Your task to perform on an android device: check battery use Image 0: 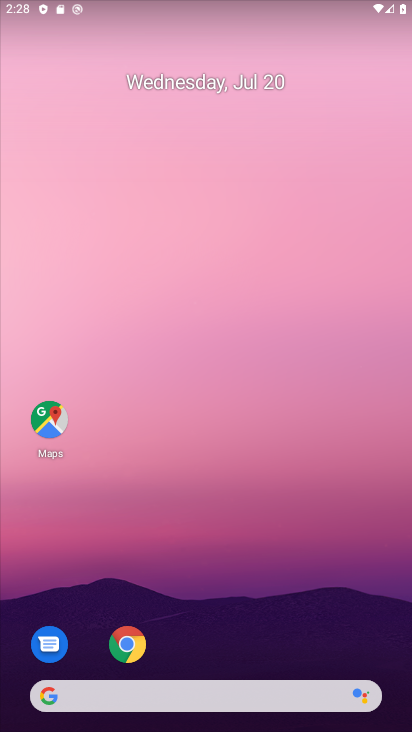
Step 0: task complete